Your task to perform on an android device: check storage Image 0: 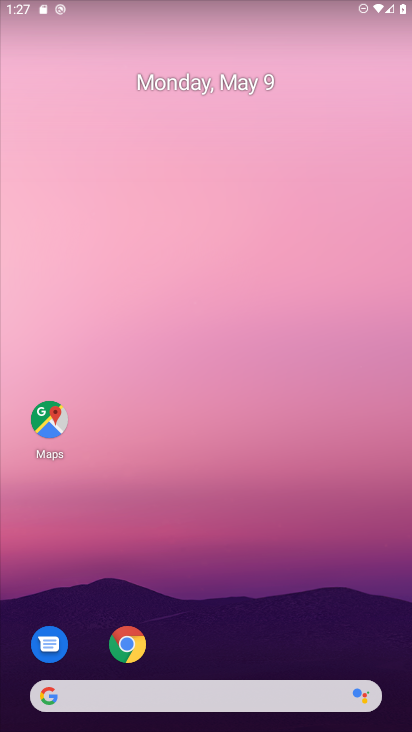
Step 0: drag from (174, 498) to (10, 127)
Your task to perform on an android device: check storage Image 1: 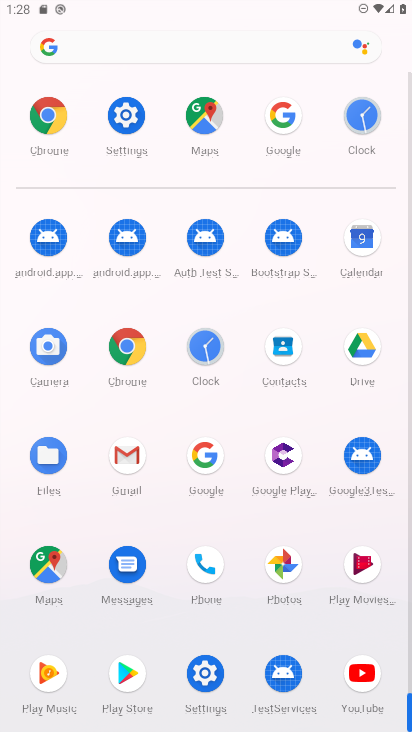
Step 1: click (123, 151)
Your task to perform on an android device: check storage Image 2: 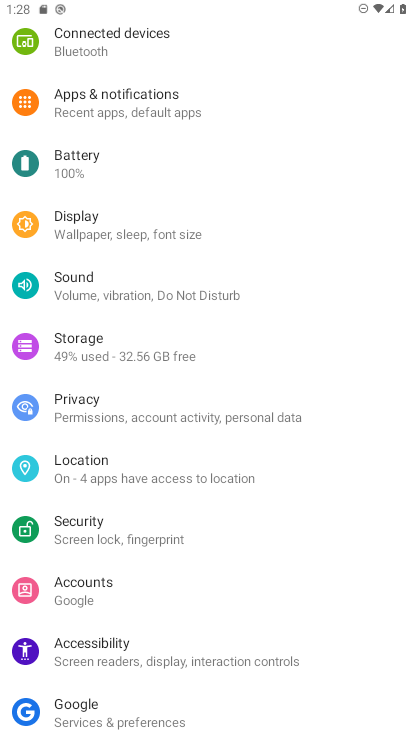
Step 2: click (72, 336)
Your task to perform on an android device: check storage Image 3: 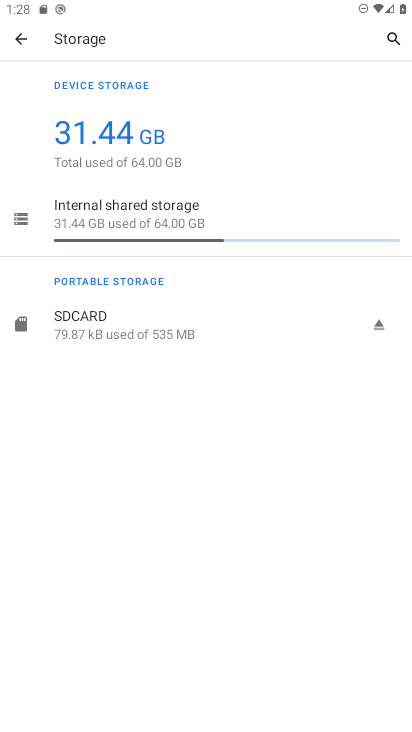
Step 3: task complete